Your task to perform on an android device: open the mobile data screen to see how much data has been used Image 0: 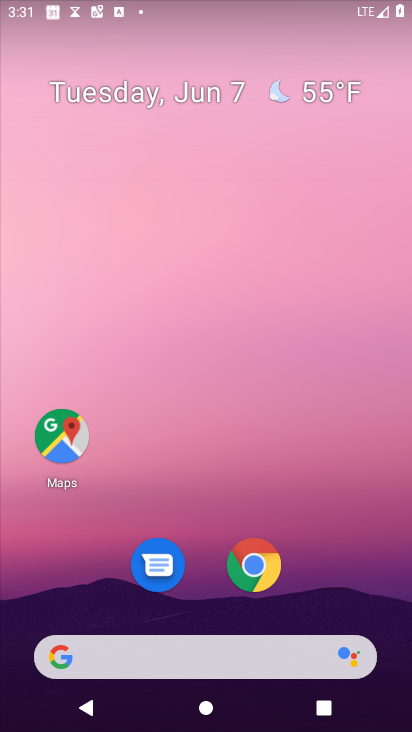
Step 0: drag from (234, 658) to (260, 98)
Your task to perform on an android device: open the mobile data screen to see how much data has been used Image 1: 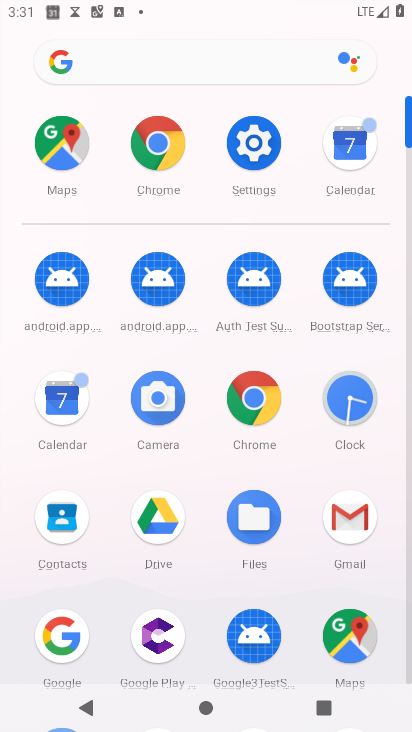
Step 1: click (262, 144)
Your task to perform on an android device: open the mobile data screen to see how much data has been used Image 2: 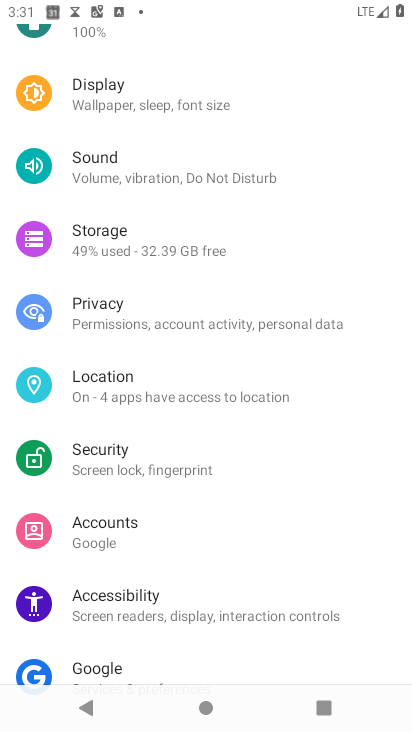
Step 2: drag from (213, 147) to (240, 579)
Your task to perform on an android device: open the mobile data screen to see how much data has been used Image 3: 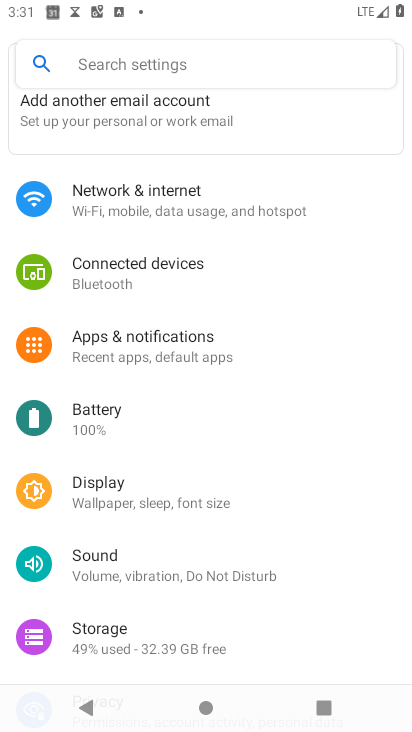
Step 3: click (162, 219)
Your task to perform on an android device: open the mobile data screen to see how much data has been used Image 4: 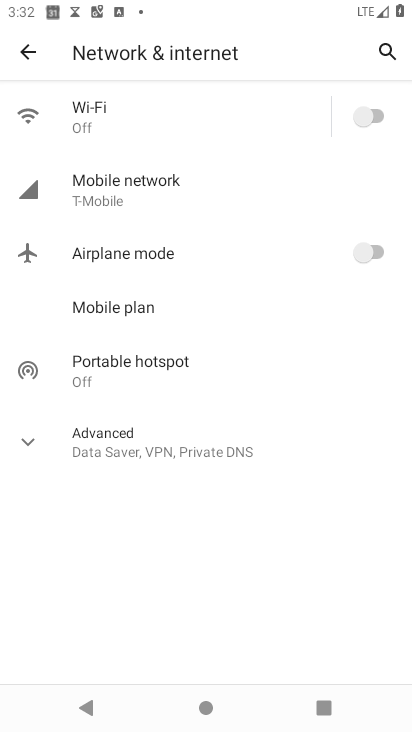
Step 4: click (229, 187)
Your task to perform on an android device: open the mobile data screen to see how much data has been used Image 5: 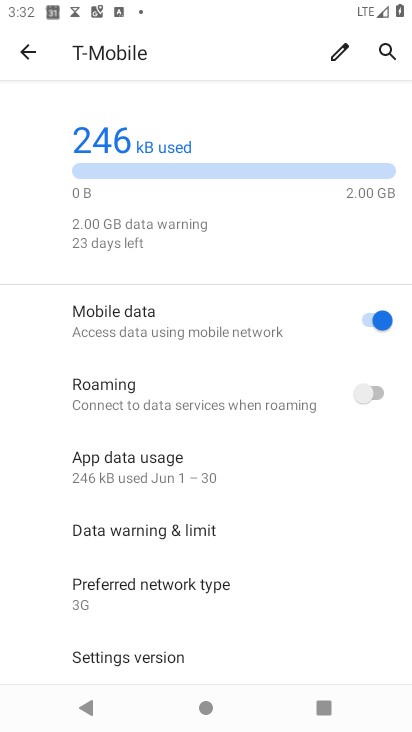
Step 5: task complete